Your task to perform on an android device: Do I have any events tomorrow? Image 0: 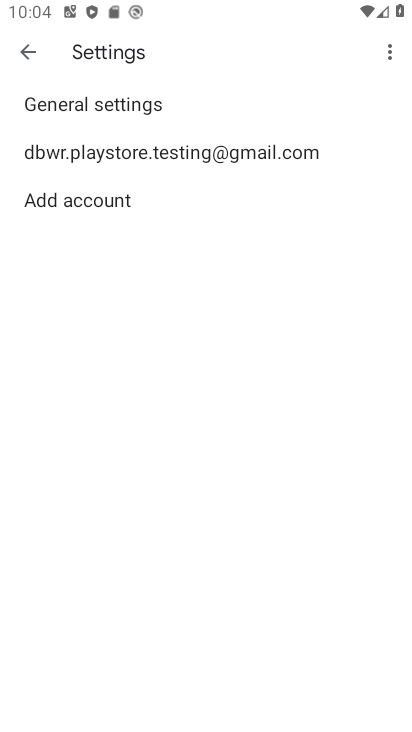
Step 0: press home button
Your task to perform on an android device: Do I have any events tomorrow? Image 1: 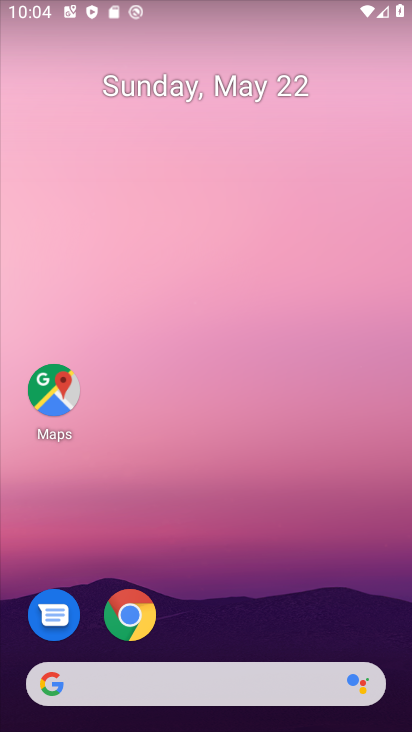
Step 1: drag from (256, 257) to (253, 56)
Your task to perform on an android device: Do I have any events tomorrow? Image 2: 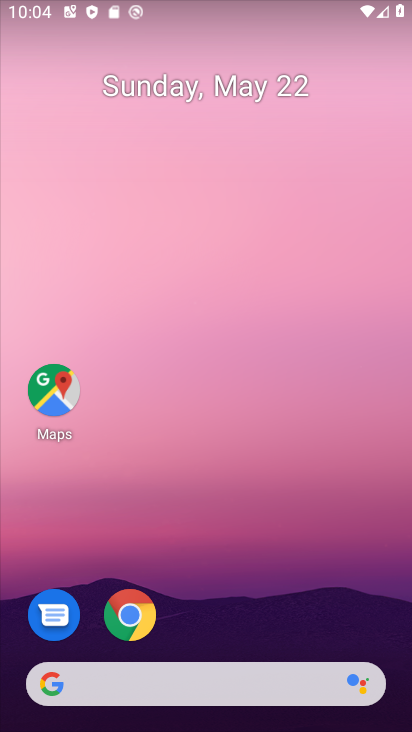
Step 2: drag from (257, 292) to (203, 64)
Your task to perform on an android device: Do I have any events tomorrow? Image 3: 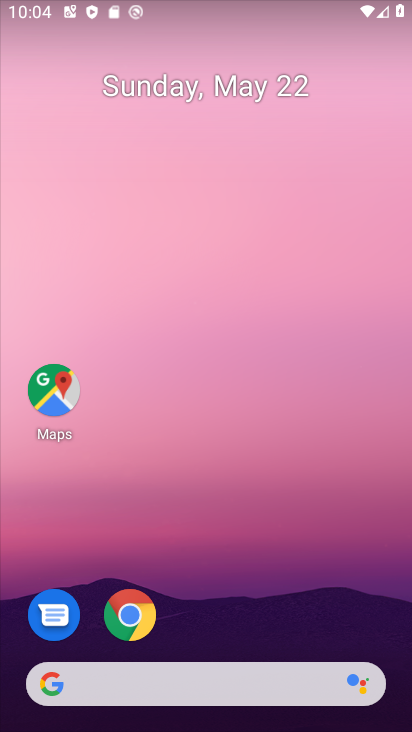
Step 3: drag from (349, 535) to (315, 102)
Your task to perform on an android device: Do I have any events tomorrow? Image 4: 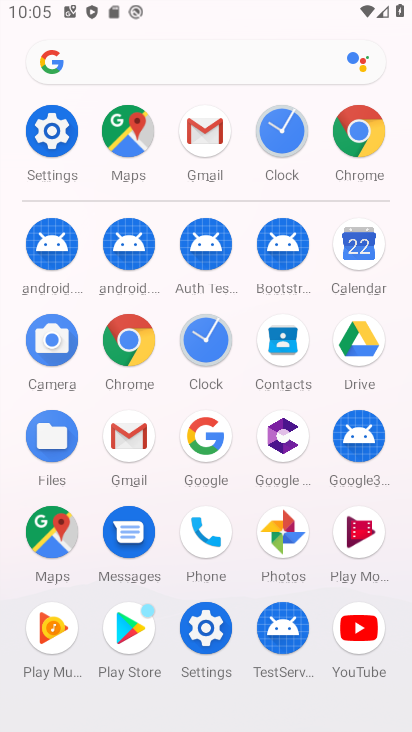
Step 4: click (348, 255)
Your task to perform on an android device: Do I have any events tomorrow? Image 5: 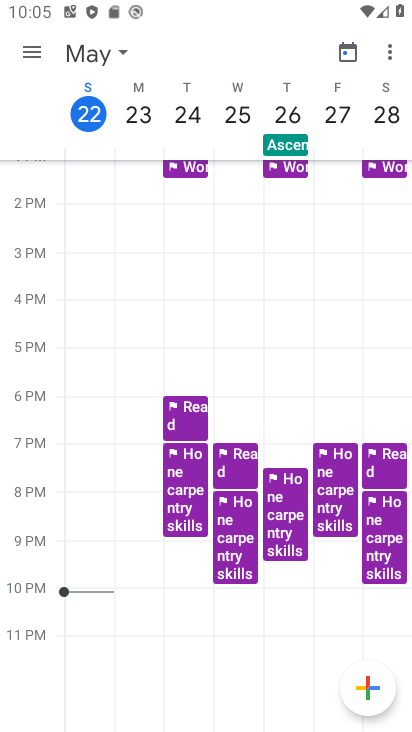
Step 5: click (359, 238)
Your task to perform on an android device: Do I have any events tomorrow? Image 6: 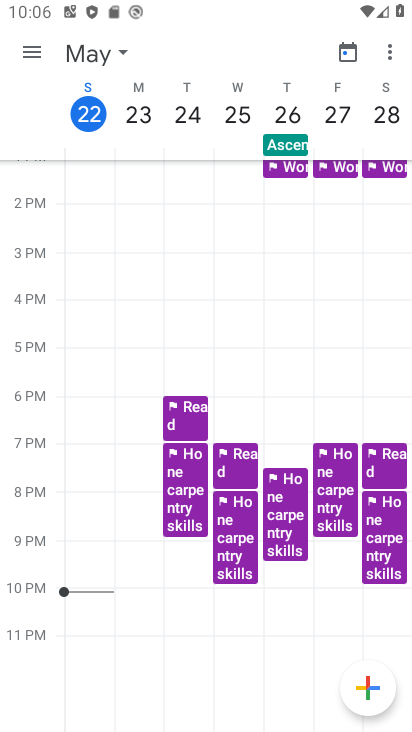
Step 6: click (136, 113)
Your task to perform on an android device: Do I have any events tomorrow? Image 7: 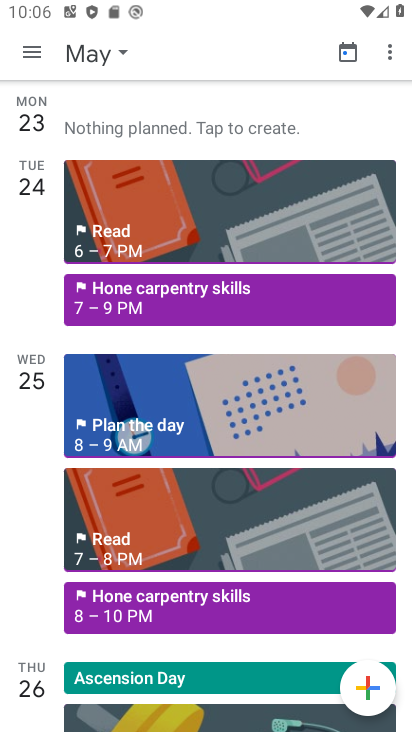
Step 7: task complete